Your task to perform on an android device: set an alarm Image 0: 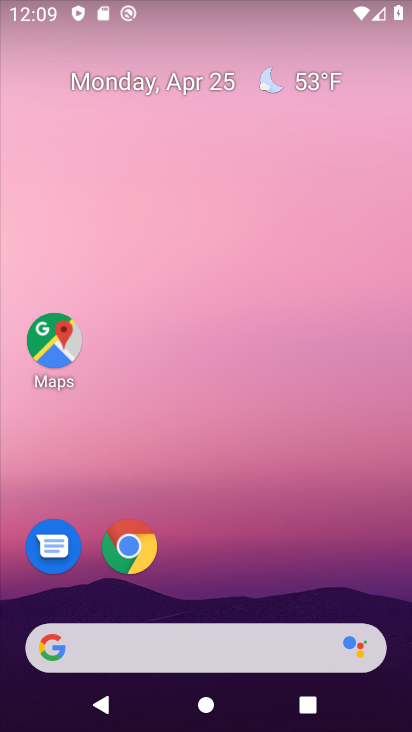
Step 0: drag from (200, 563) to (201, 180)
Your task to perform on an android device: set an alarm Image 1: 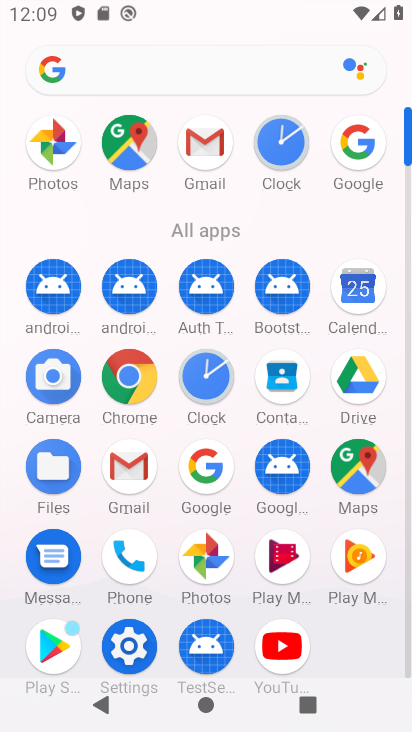
Step 1: click (280, 150)
Your task to perform on an android device: set an alarm Image 2: 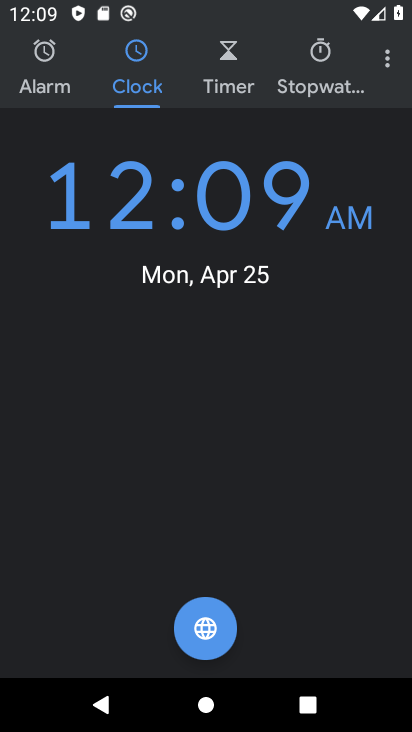
Step 2: click (31, 69)
Your task to perform on an android device: set an alarm Image 3: 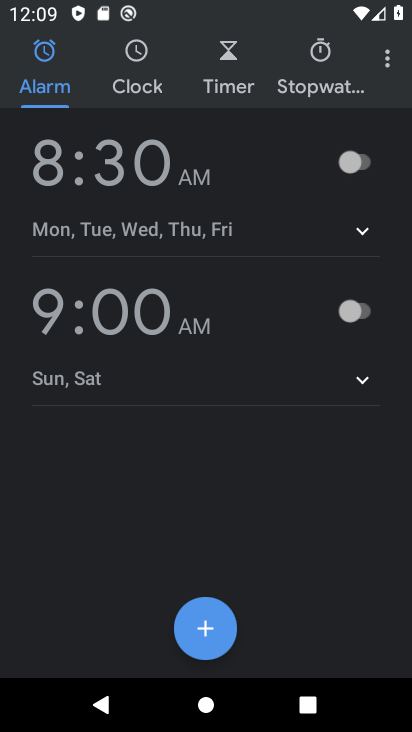
Step 3: click (366, 169)
Your task to perform on an android device: set an alarm Image 4: 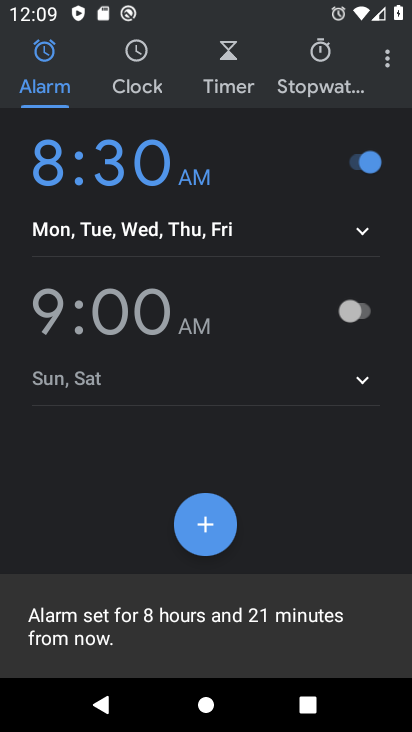
Step 4: task complete